Your task to perform on an android device: turn off smart reply in the gmail app Image 0: 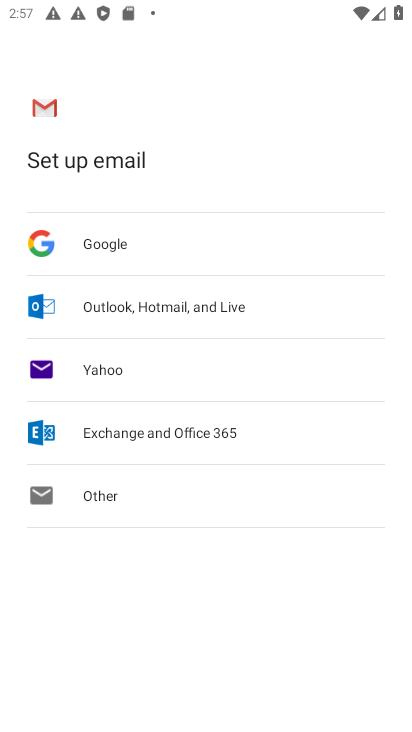
Step 0: press home button
Your task to perform on an android device: turn off smart reply in the gmail app Image 1: 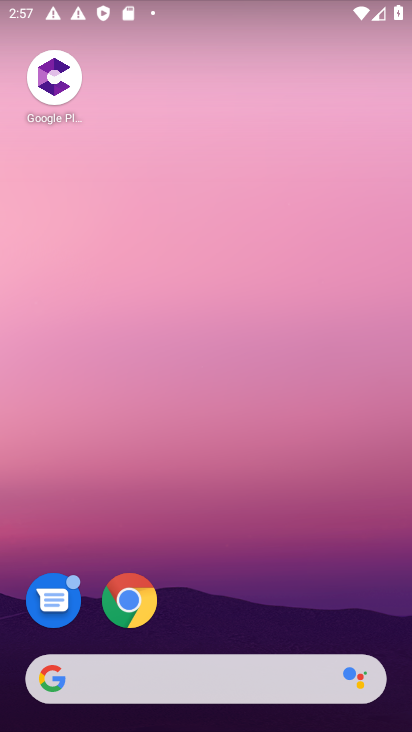
Step 1: drag from (229, 496) to (182, 75)
Your task to perform on an android device: turn off smart reply in the gmail app Image 2: 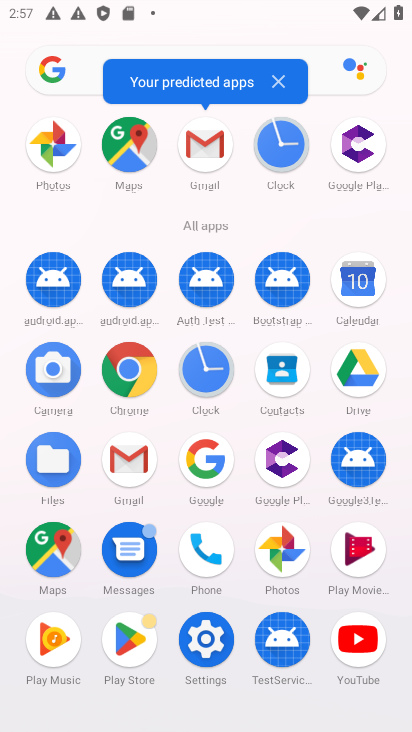
Step 2: click (202, 165)
Your task to perform on an android device: turn off smart reply in the gmail app Image 3: 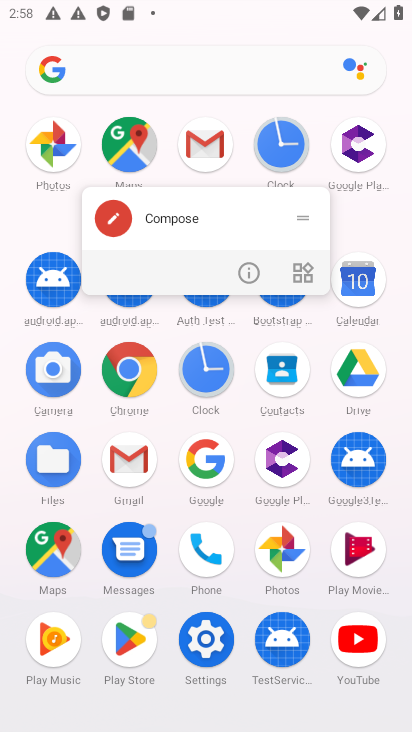
Step 3: click (192, 159)
Your task to perform on an android device: turn off smart reply in the gmail app Image 4: 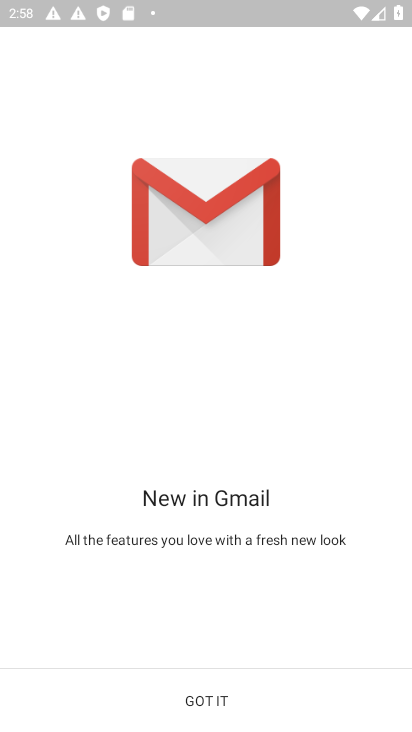
Step 4: click (218, 709)
Your task to perform on an android device: turn off smart reply in the gmail app Image 5: 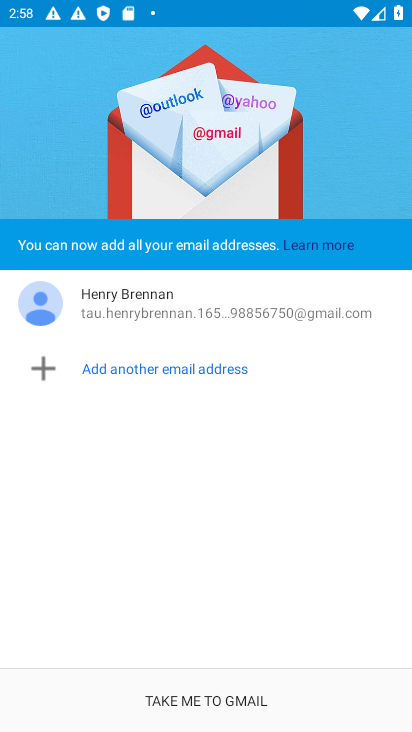
Step 5: click (205, 706)
Your task to perform on an android device: turn off smart reply in the gmail app Image 6: 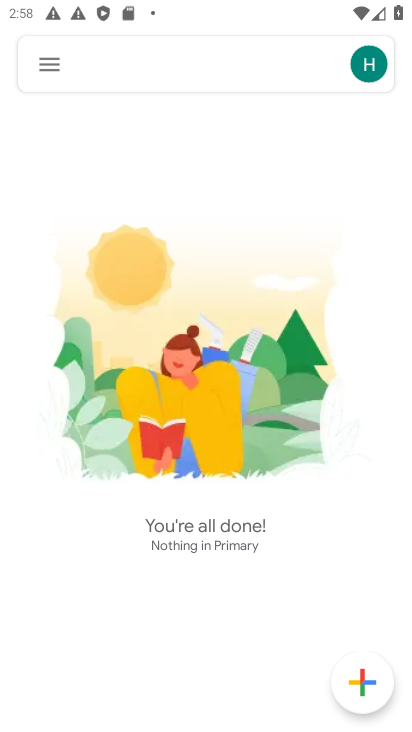
Step 6: click (43, 71)
Your task to perform on an android device: turn off smart reply in the gmail app Image 7: 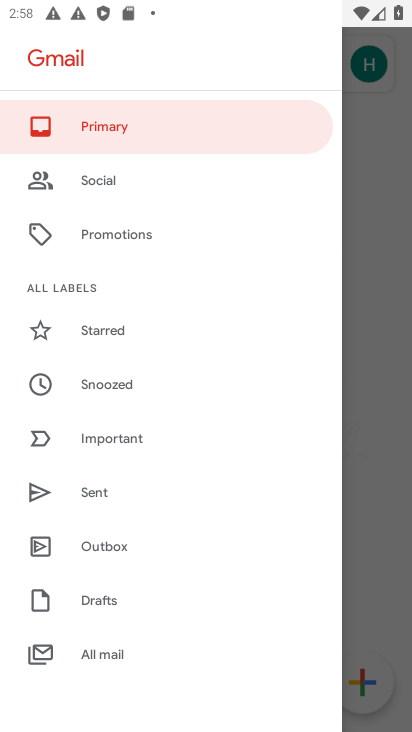
Step 7: drag from (231, 615) to (254, 255)
Your task to perform on an android device: turn off smart reply in the gmail app Image 8: 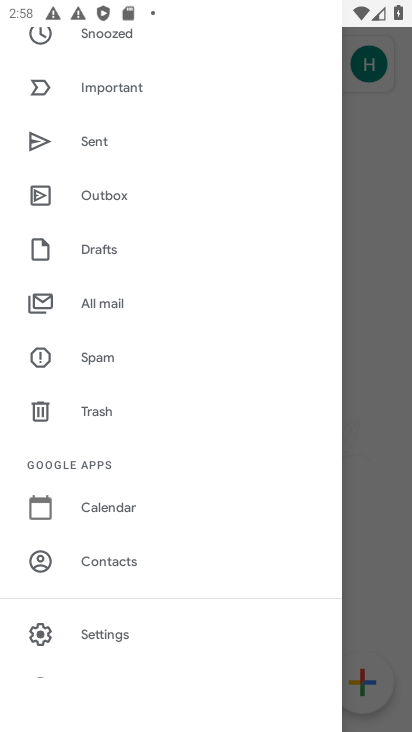
Step 8: click (114, 631)
Your task to perform on an android device: turn off smart reply in the gmail app Image 9: 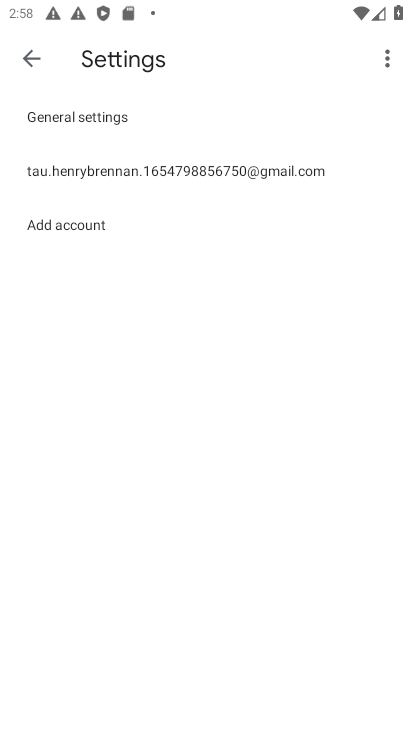
Step 9: click (157, 165)
Your task to perform on an android device: turn off smart reply in the gmail app Image 10: 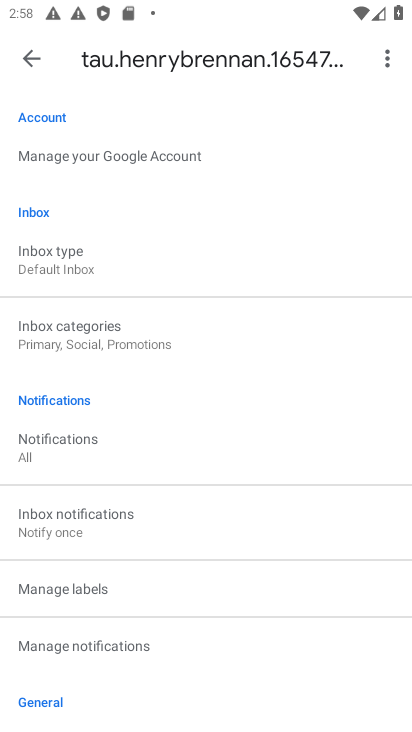
Step 10: drag from (324, 610) to (230, 235)
Your task to perform on an android device: turn off smart reply in the gmail app Image 11: 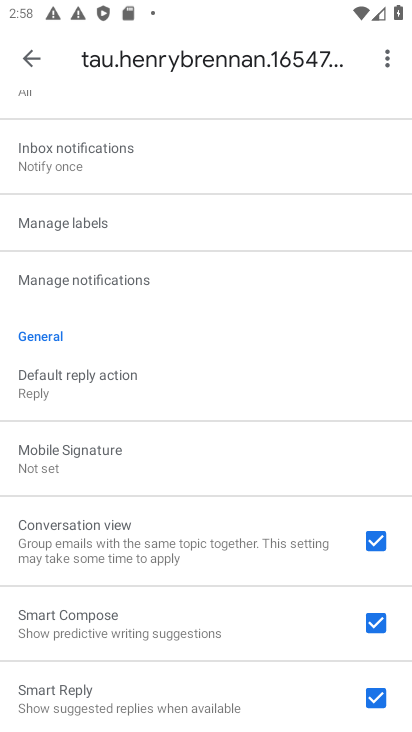
Step 11: click (382, 698)
Your task to perform on an android device: turn off smart reply in the gmail app Image 12: 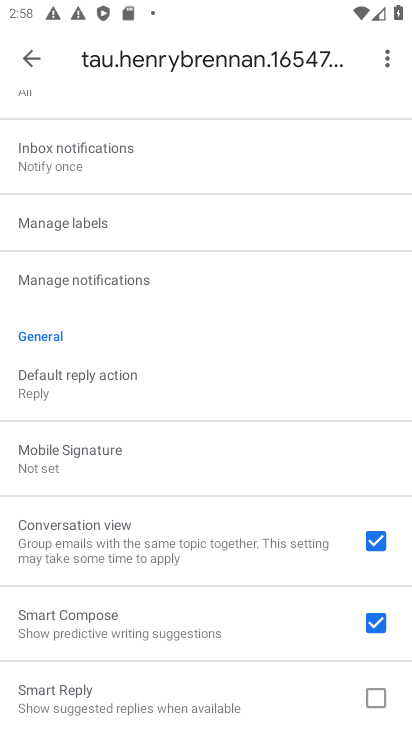
Step 12: task complete